Your task to perform on an android device: turn on notifications settings in the gmail app Image 0: 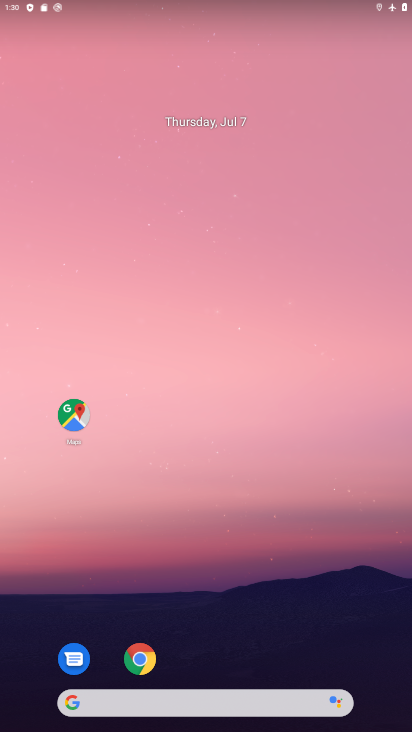
Step 0: drag from (247, 596) to (281, 300)
Your task to perform on an android device: turn on notifications settings in the gmail app Image 1: 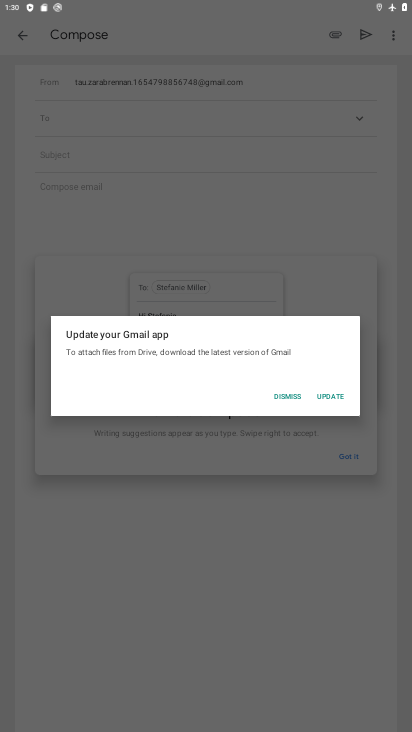
Step 1: press home button
Your task to perform on an android device: turn on notifications settings in the gmail app Image 2: 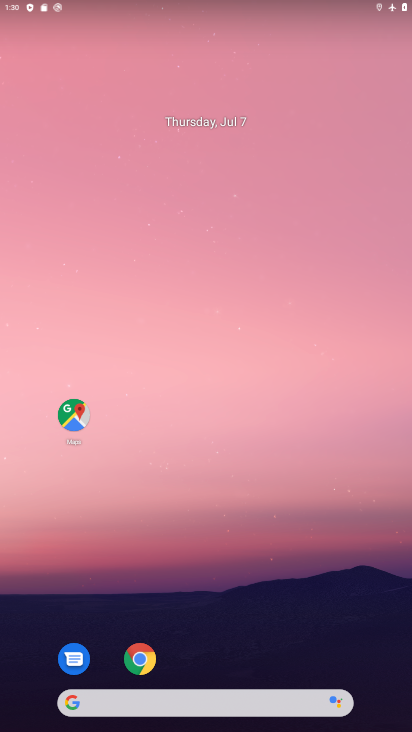
Step 2: drag from (238, 583) to (310, 277)
Your task to perform on an android device: turn on notifications settings in the gmail app Image 3: 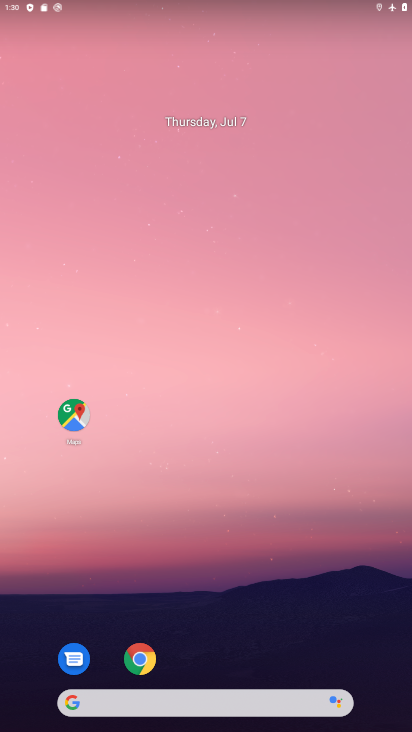
Step 3: drag from (185, 638) to (207, 142)
Your task to perform on an android device: turn on notifications settings in the gmail app Image 4: 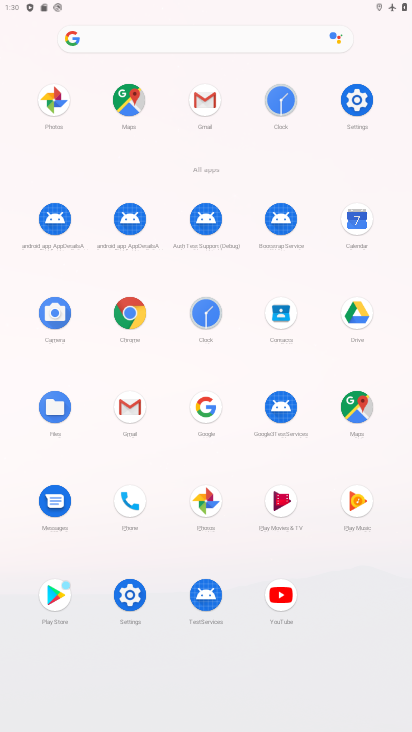
Step 4: click (132, 404)
Your task to perform on an android device: turn on notifications settings in the gmail app Image 5: 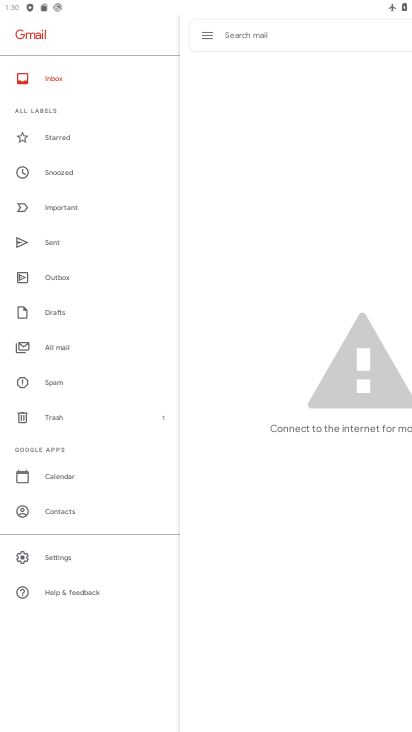
Step 5: click (57, 551)
Your task to perform on an android device: turn on notifications settings in the gmail app Image 6: 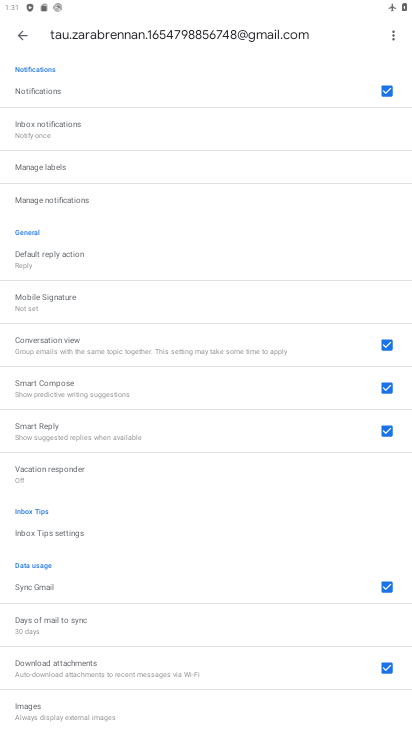
Step 6: click (76, 203)
Your task to perform on an android device: turn on notifications settings in the gmail app Image 7: 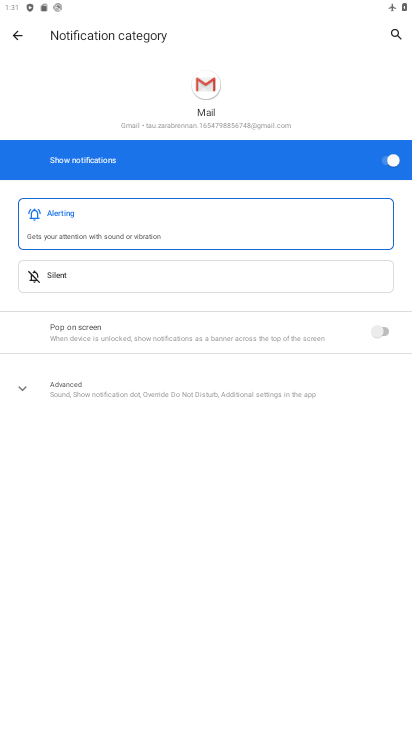
Step 7: task complete